Your task to perform on an android device: delete a single message in the gmail app Image 0: 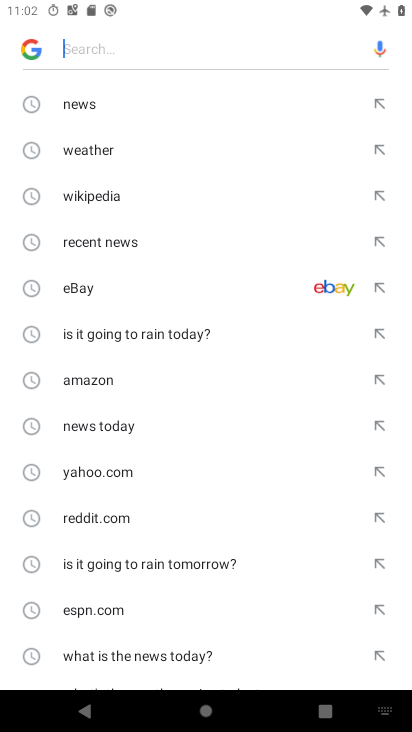
Step 0: press home button
Your task to perform on an android device: delete a single message in the gmail app Image 1: 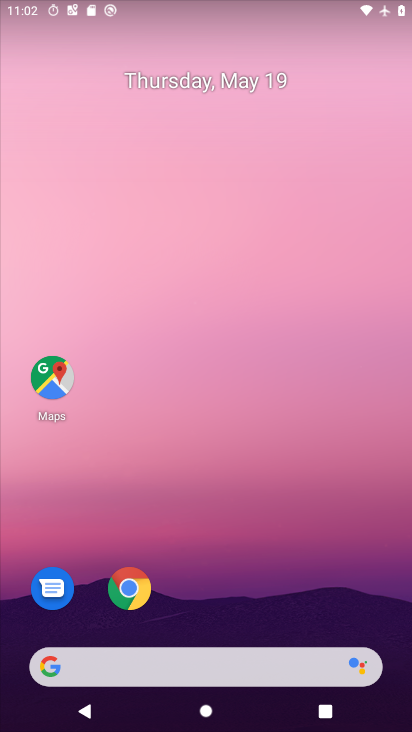
Step 1: drag from (221, 653) to (268, 256)
Your task to perform on an android device: delete a single message in the gmail app Image 2: 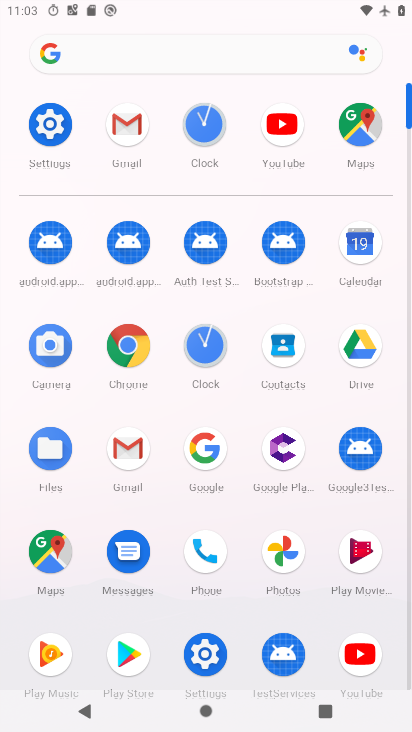
Step 2: click (125, 137)
Your task to perform on an android device: delete a single message in the gmail app Image 3: 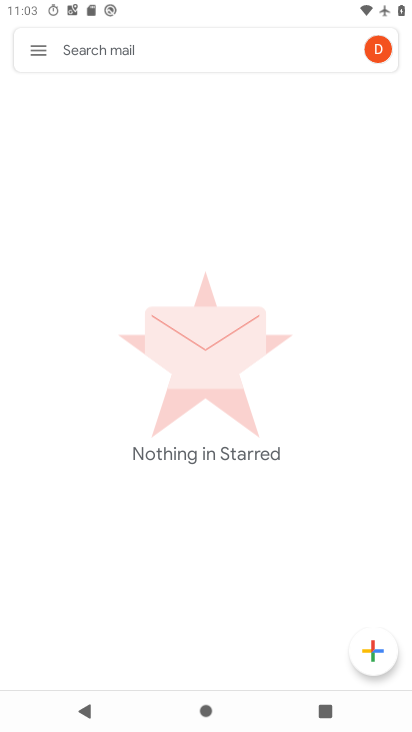
Step 3: click (41, 47)
Your task to perform on an android device: delete a single message in the gmail app Image 4: 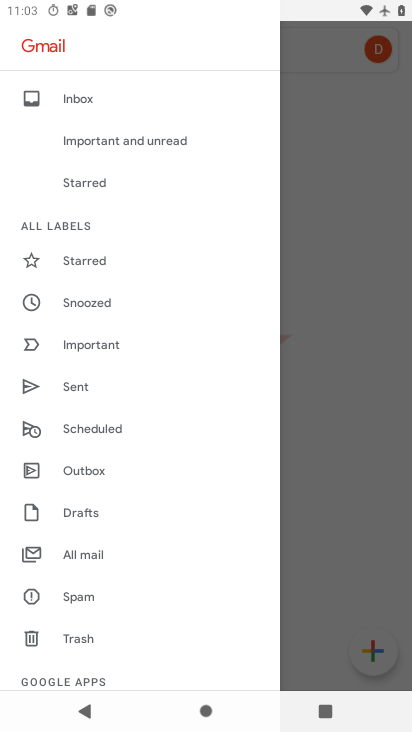
Step 4: click (93, 552)
Your task to perform on an android device: delete a single message in the gmail app Image 5: 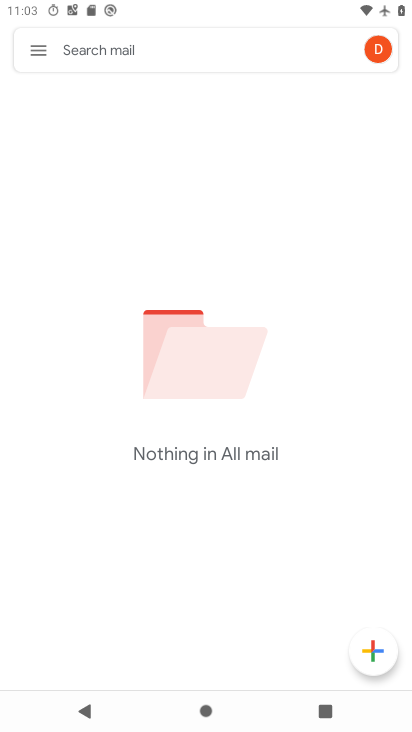
Step 5: task complete